Your task to perform on an android device: toggle data saver in the chrome app Image 0: 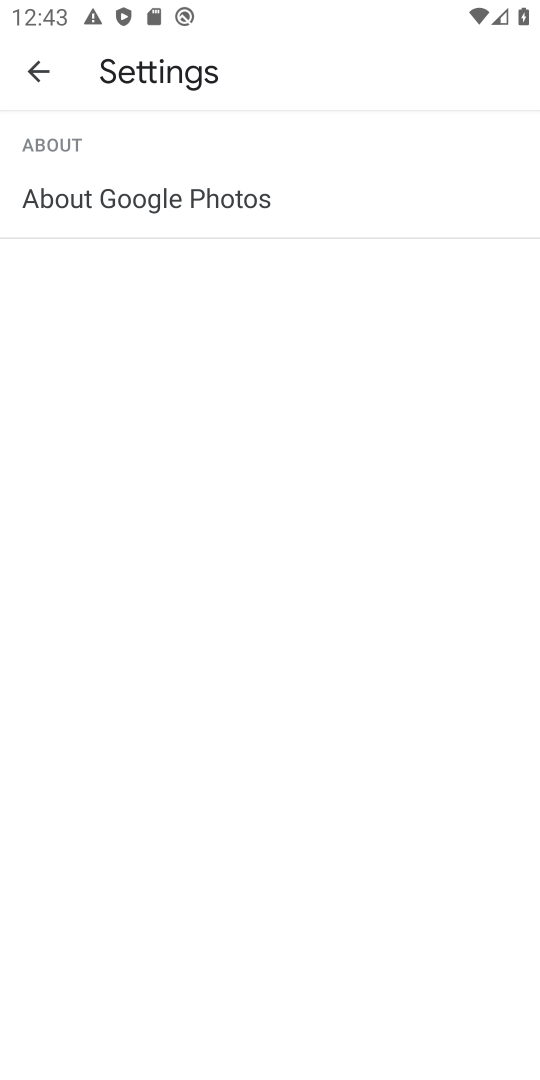
Step 0: press home button
Your task to perform on an android device: toggle data saver in the chrome app Image 1: 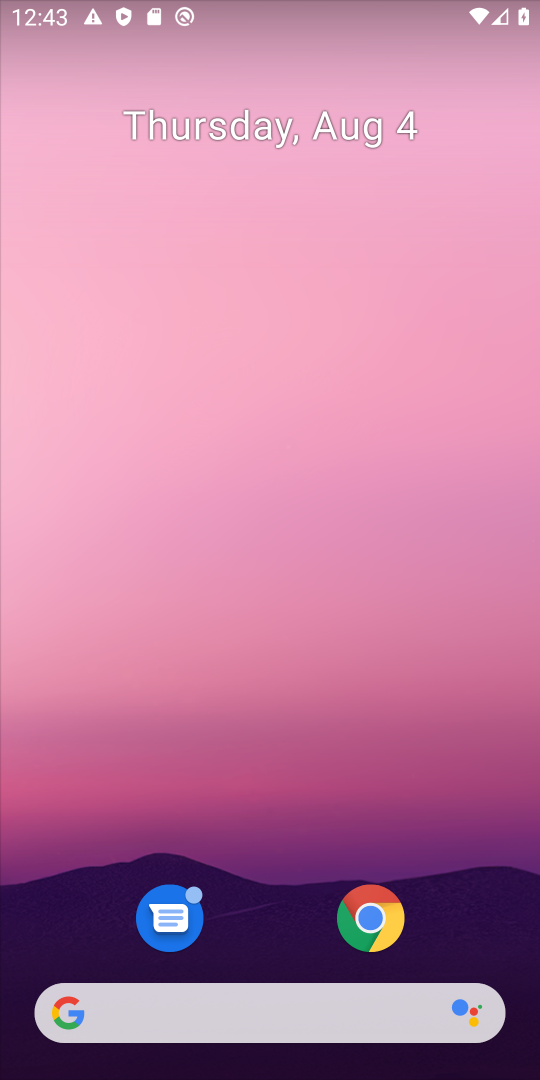
Step 1: click (348, 901)
Your task to perform on an android device: toggle data saver in the chrome app Image 2: 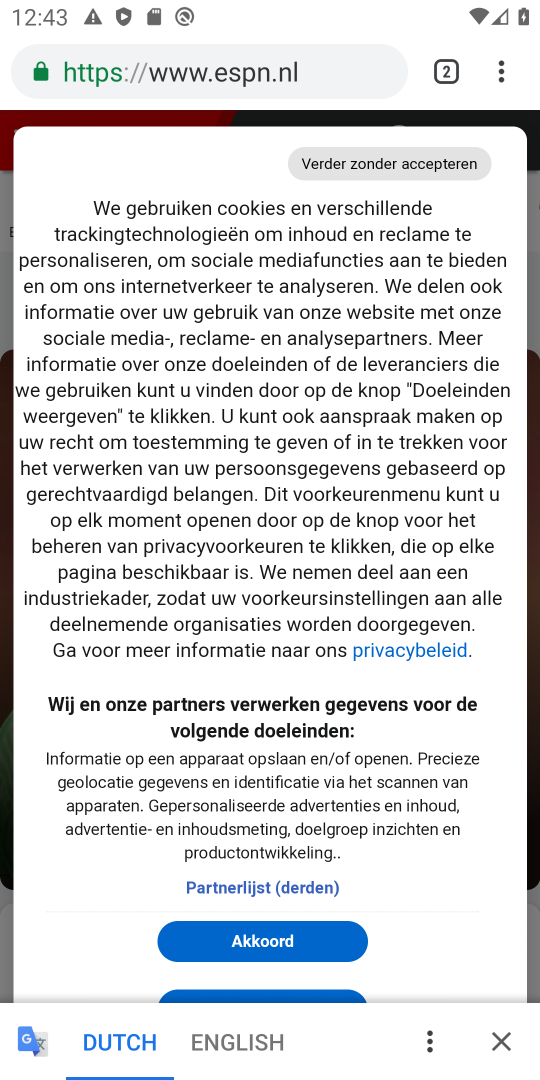
Step 2: drag from (364, 908) to (369, 597)
Your task to perform on an android device: toggle data saver in the chrome app Image 3: 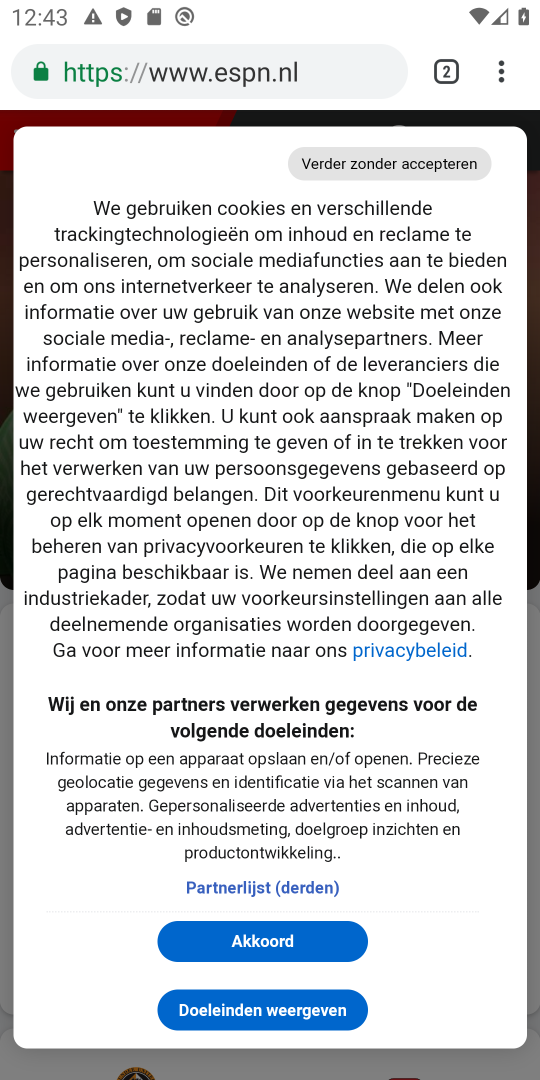
Step 3: click (502, 56)
Your task to perform on an android device: toggle data saver in the chrome app Image 4: 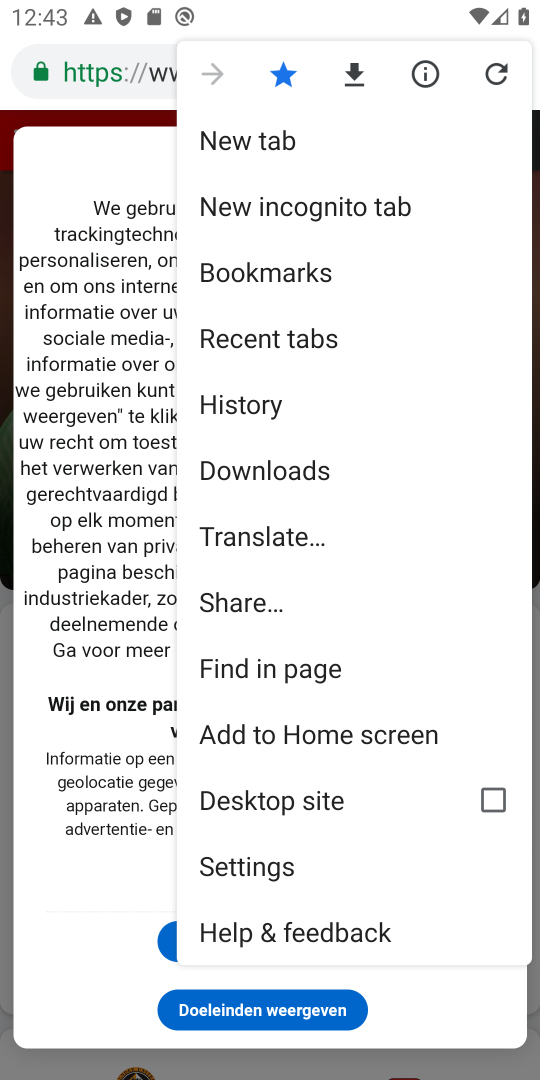
Step 4: click (295, 864)
Your task to perform on an android device: toggle data saver in the chrome app Image 5: 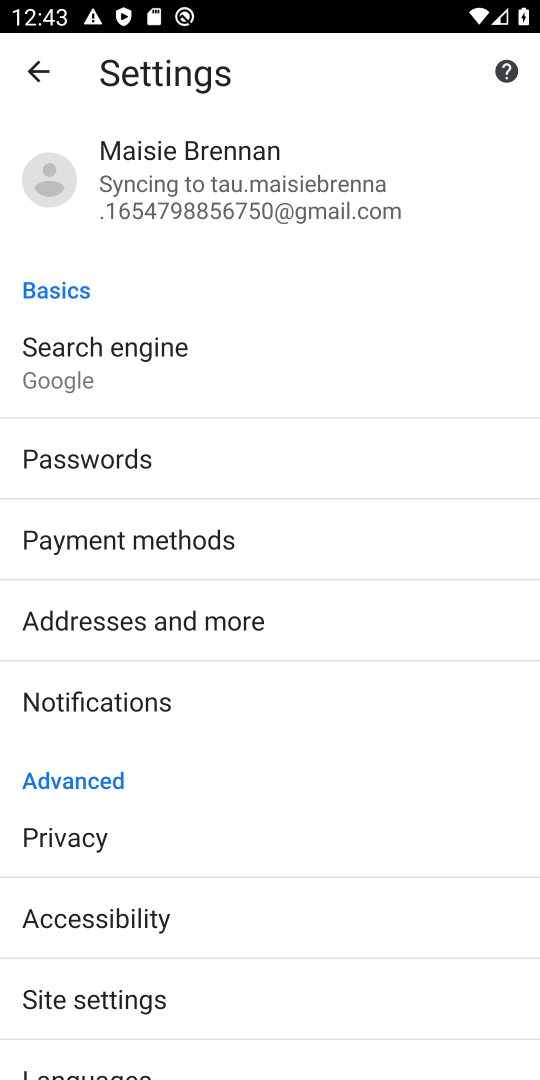
Step 5: drag from (254, 943) to (250, 425)
Your task to perform on an android device: toggle data saver in the chrome app Image 6: 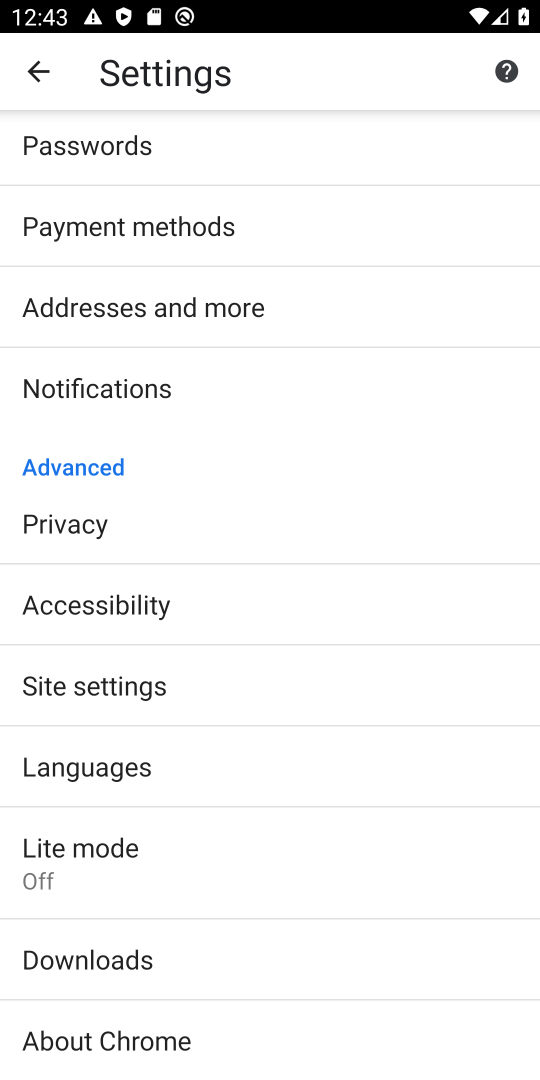
Step 6: click (96, 840)
Your task to perform on an android device: toggle data saver in the chrome app Image 7: 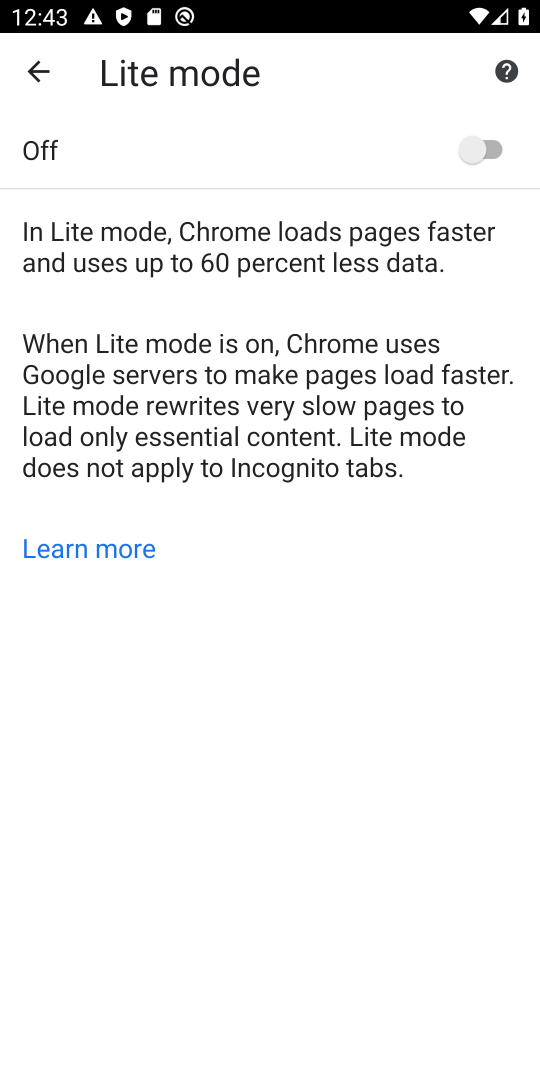
Step 7: click (511, 156)
Your task to perform on an android device: toggle data saver in the chrome app Image 8: 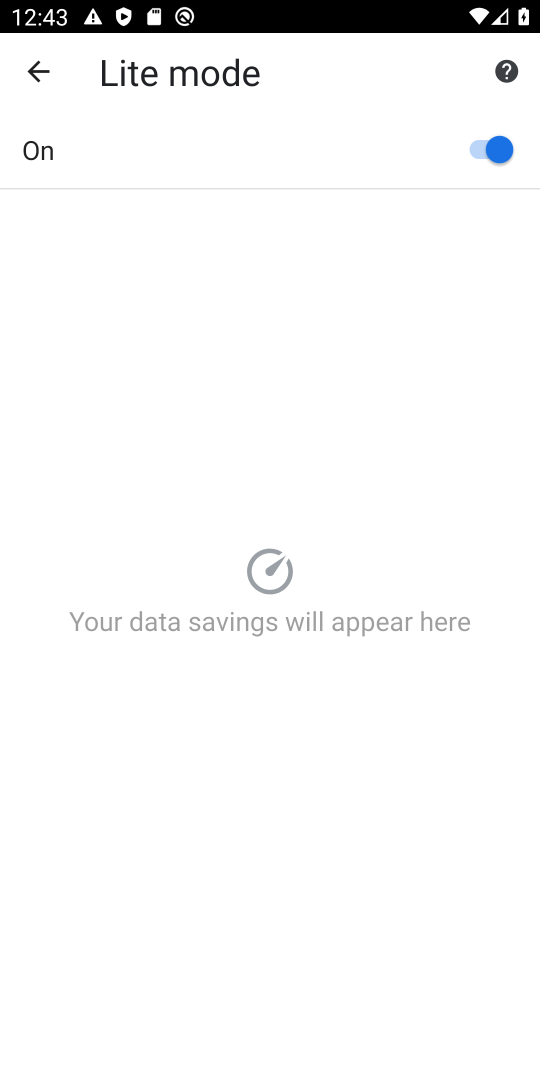
Step 8: task complete